Your task to perform on an android device: check battery use Image 0: 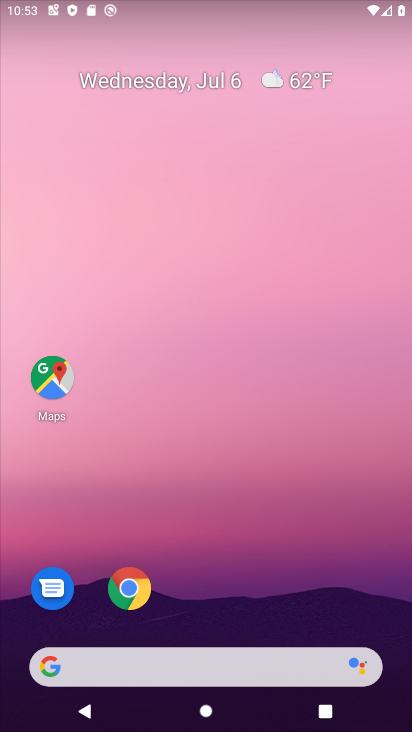
Step 0: drag from (392, 624) to (300, 194)
Your task to perform on an android device: check battery use Image 1: 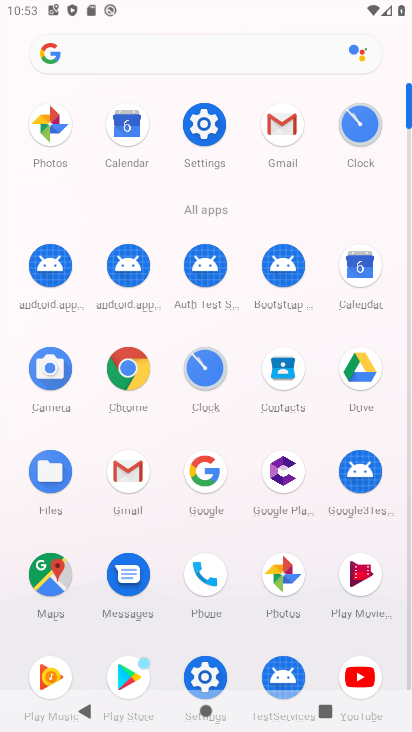
Step 1: drag from (227, 633) to (249, 421)
Your task to perform on an android device: check battery use Image 2: 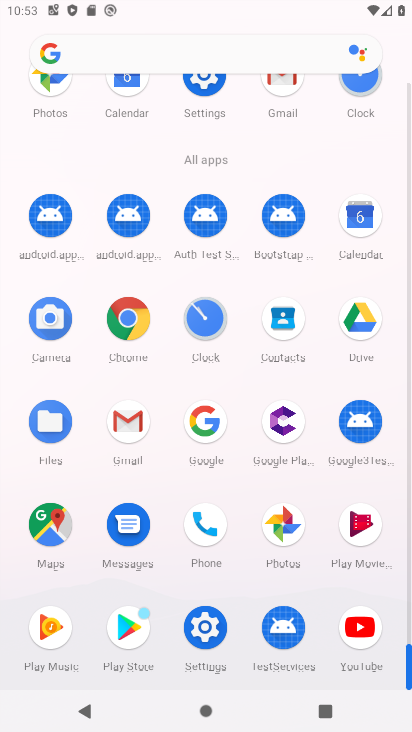
Step 2: click (203, 626)
Your task to perform on an android device: check battery use Image 3: 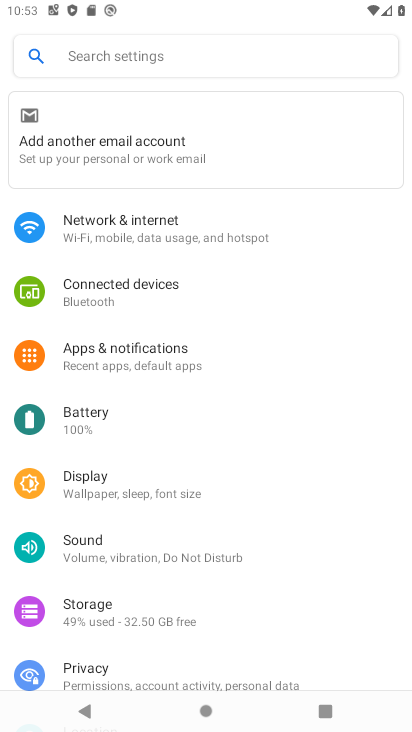
Step 3: click (89, 411)
Your task to perform on an android device: check battery use Image 4: 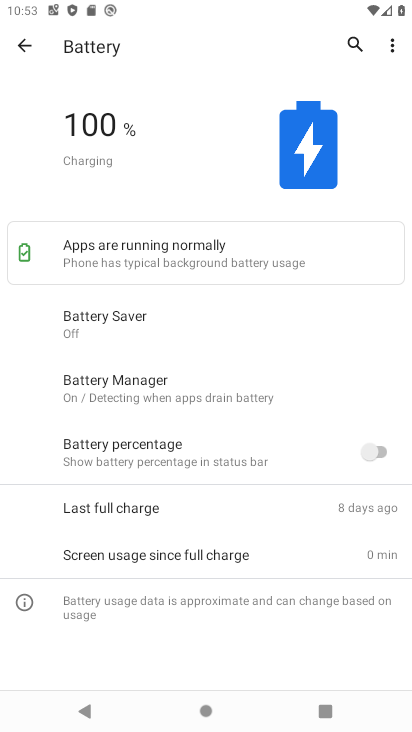
Step 4: click (393, 52)
Your task to perform on an android device: check battery use Image 5: 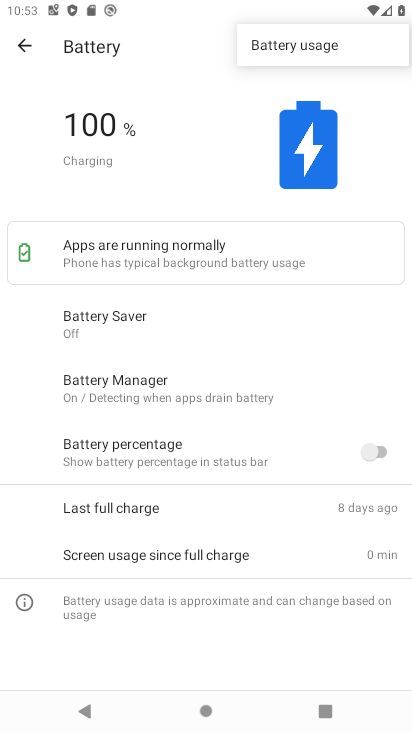
Step 5: click (279, 46)
Your task to perform on an android device: check battery use Image 6: 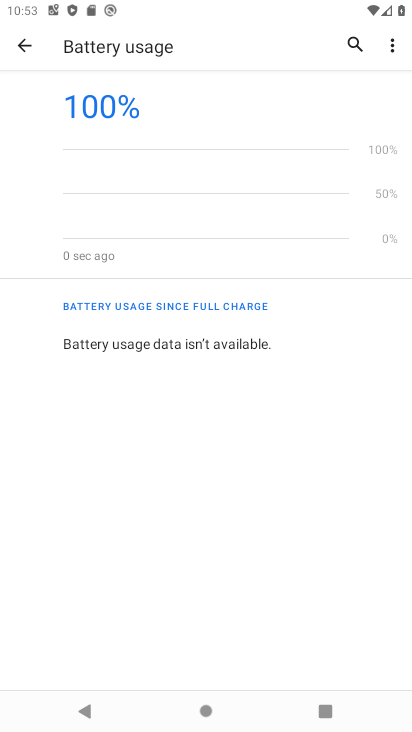
Step 6: task complete